Your task to perform on an android device: uninstall "Google Translate" Image 0: 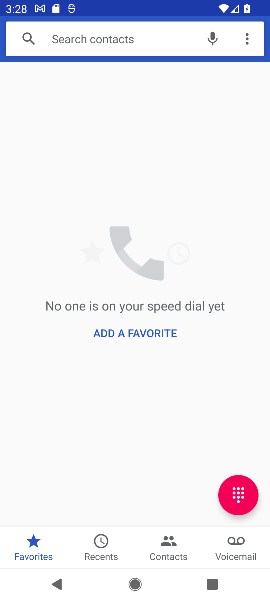
Step 0: press home button
Your task to perform on an android device: uninstall "Google Translate" Image 1: 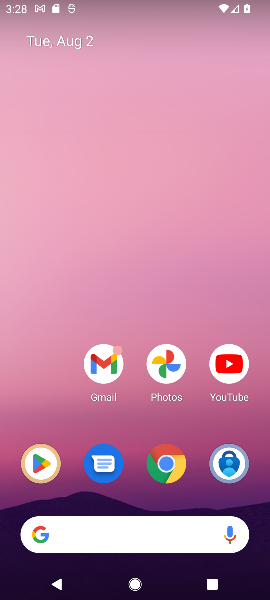
Step 1: click (42, 458)
Your task to perform on an android device: uninstall "Google Translate" Image 2: 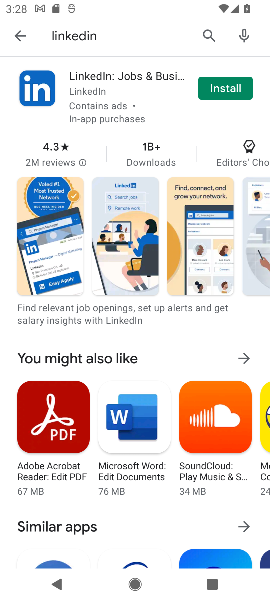
Step 2: click (207, 29)
Your task to perform on an android device: uninstall "Google Translate" Image 3: 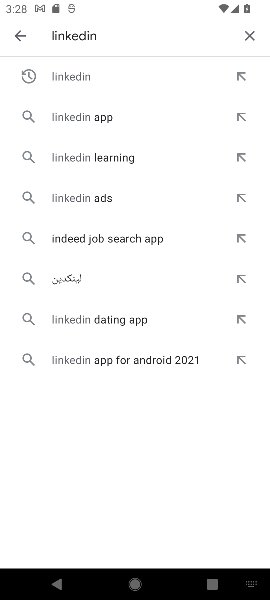
Step 3: type "Google Translate"
Your task to perform on an android device: uninstall "Google Translate" Image 4: 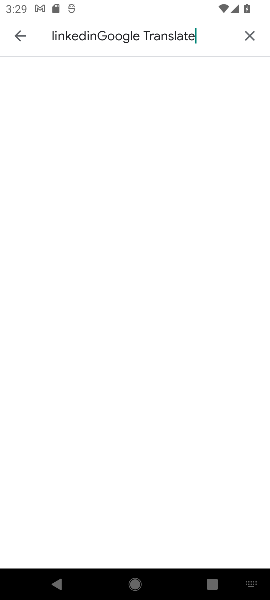
Step 4: click (250, 34)
Your task to perform on an android device: uninstall "Google Translate" Image 5: 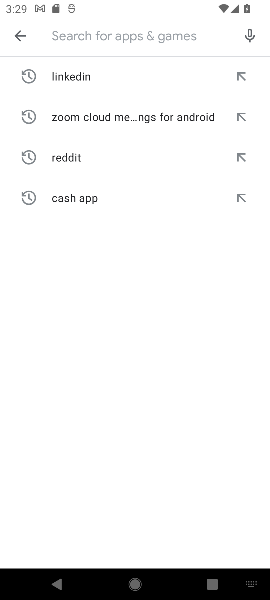
Step 5: type "Google Translate"
Your task to perform on an android device: uninstall "Google Translate" Image 6: 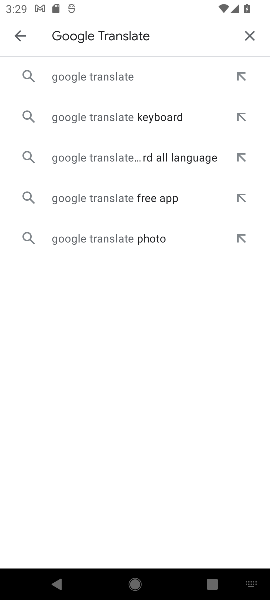
Step 6: click (100, 74)
Your task to perform on an android device: uninstall "Google Translate" Image 7: 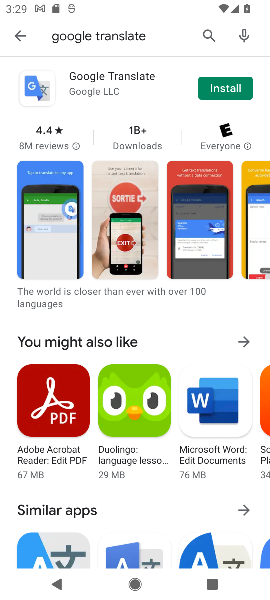
Step 7: task complete